Your task to perform on an android device: Open display settings Image 0: 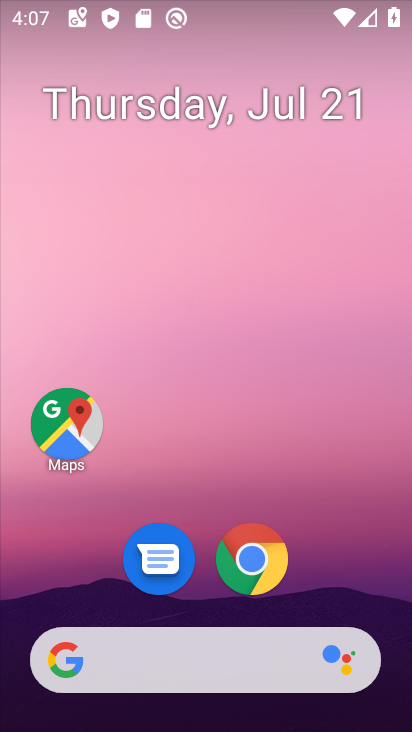
Step 0: drag from (199, 570) to (252, 22)
Your task to perform on an android device: Open display settings Image 1: 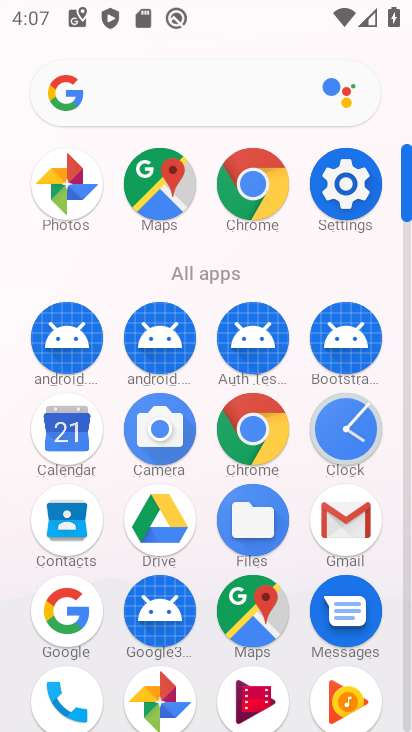
Step 1: click (338, 184)
Your task to perform on an android device: Open display settings Image 2: 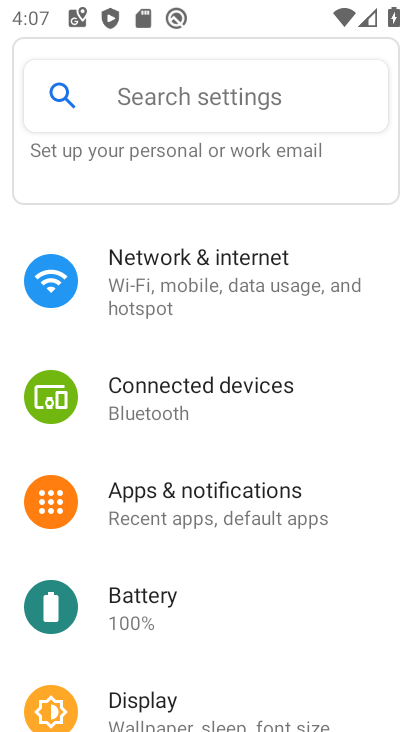
Step 2: click (136, 691)
Your task to perform on an android device: Open display settings Image 3: 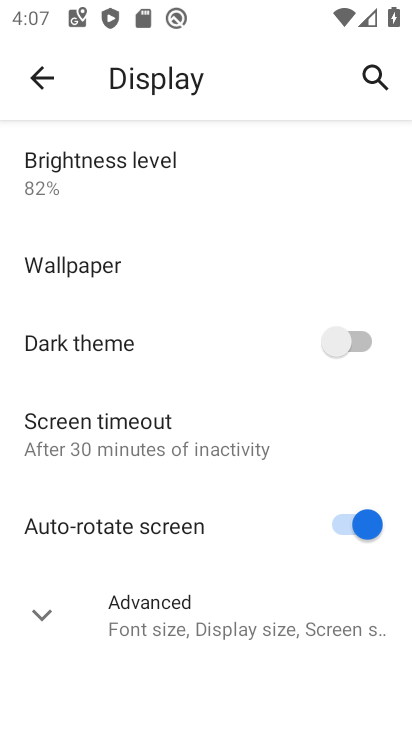
Step 3: task complete